Your task to perform on an android device: change text size in settings app Image 0: 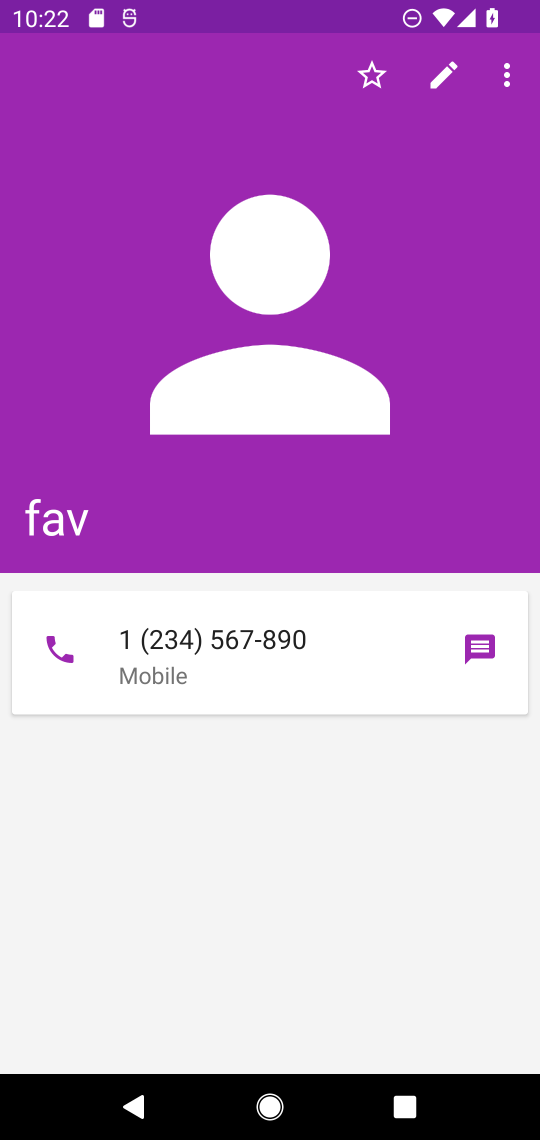
Step 0: press home button
Your task to perform on an android device: change text size in settings app Image 1: 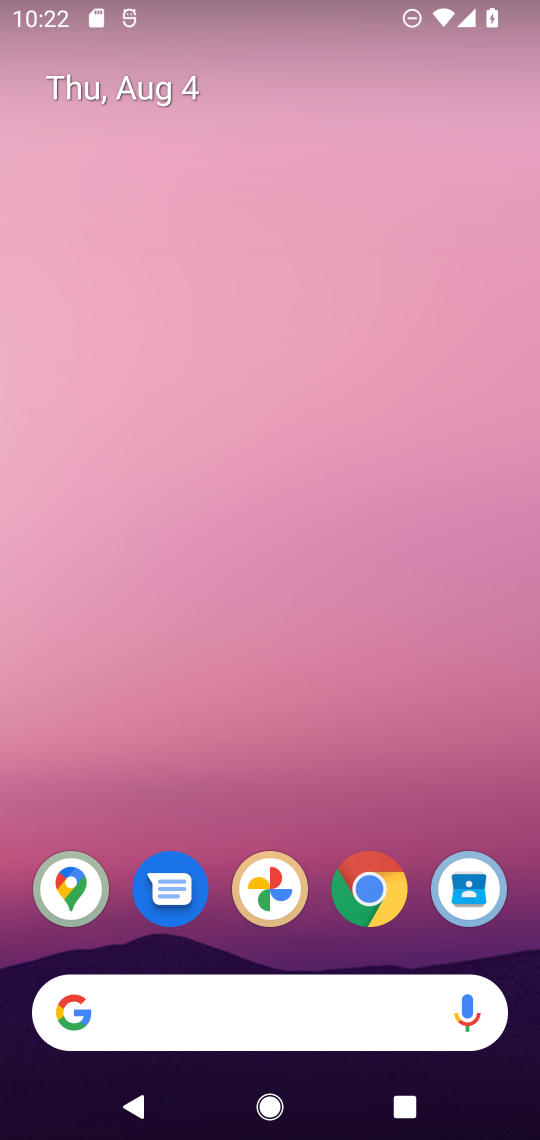
Step 1: drag from (407, 746) to (420, 232)
Your task to perform on an android device: change text size in settings app Image 2: 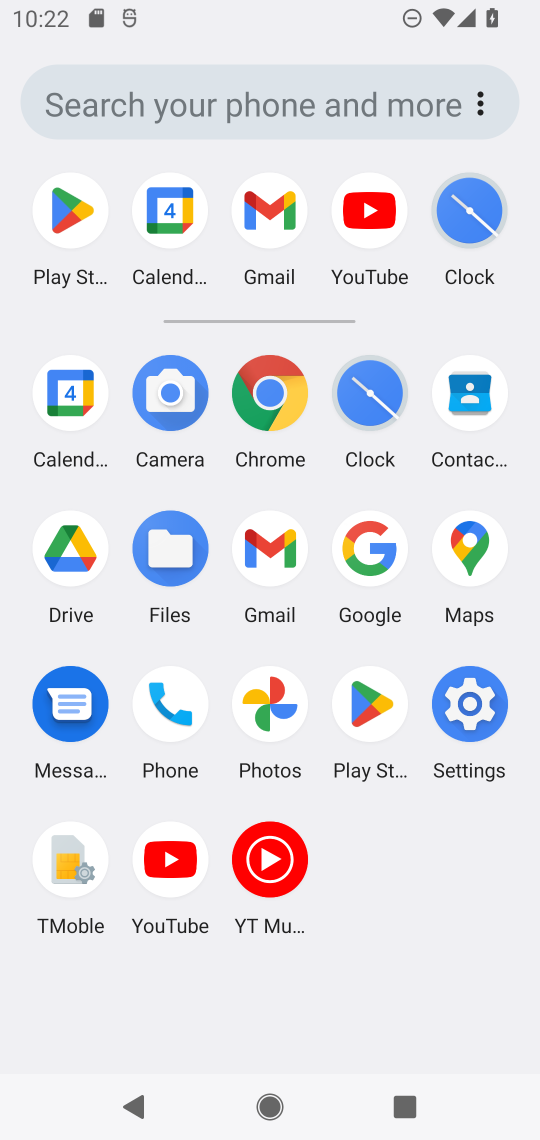
Step 2: click (478, 715)
Your task to perform on an android device: change text size in settings app Image 3: 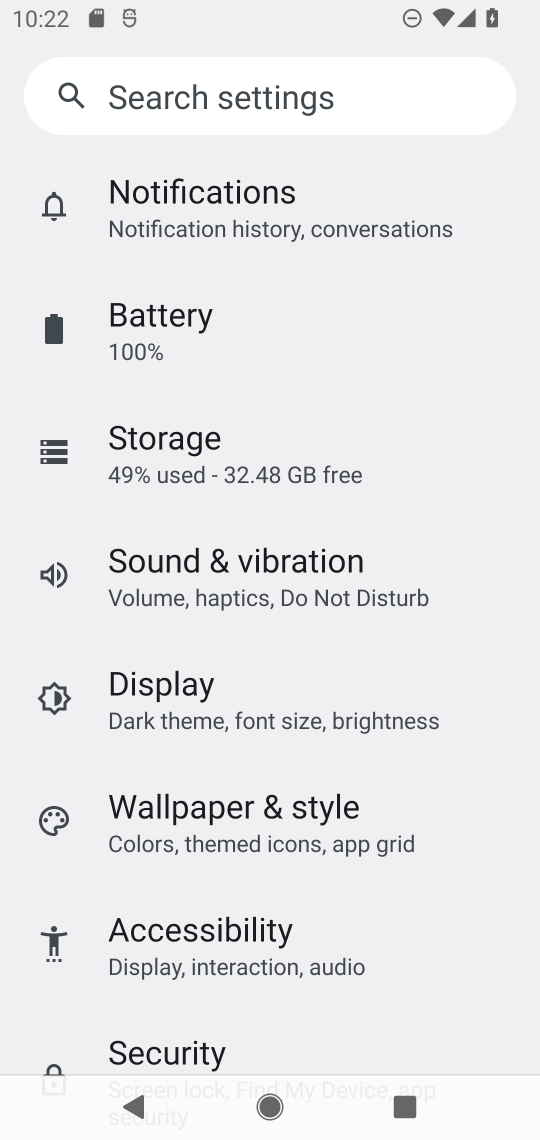
Step 3: drag from (456, 870) to (452, 693)
Your task to perform on an android device: change text size in settings app Image 4: 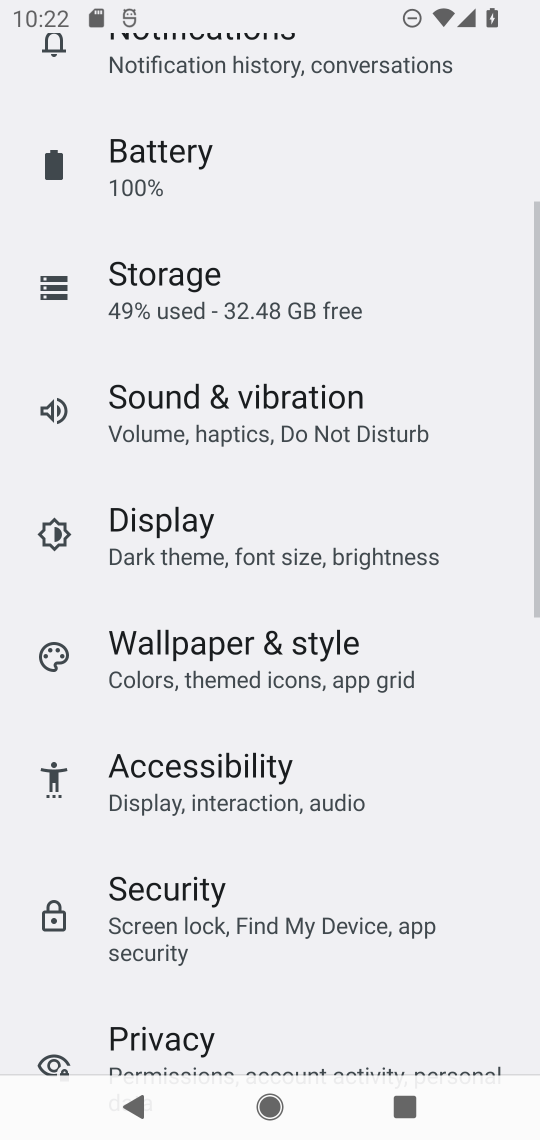
Step 4: drag from (442, 1005) to (475, 781)
Your task to perform on an android device: change text size in settings app Image 5: 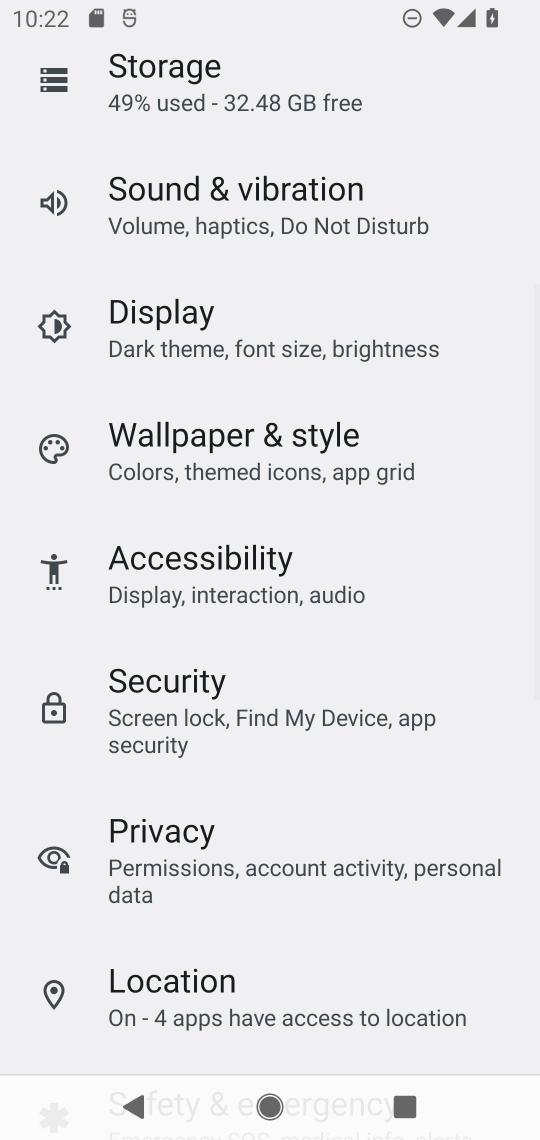
Step 5: drag from (479, 961) to (486, 732)
Your task to perform on an android device: change text size in settings app Image 6: 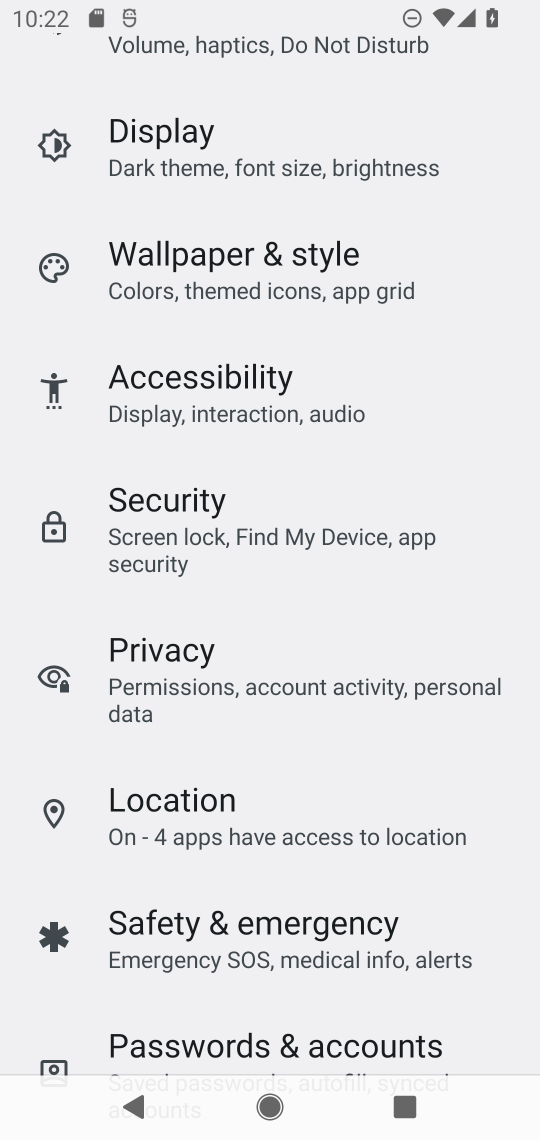
Step 6: drag from (461, 1018) to (490, 781)
Your task to perform on an android device: change text size in settings app Image 7: 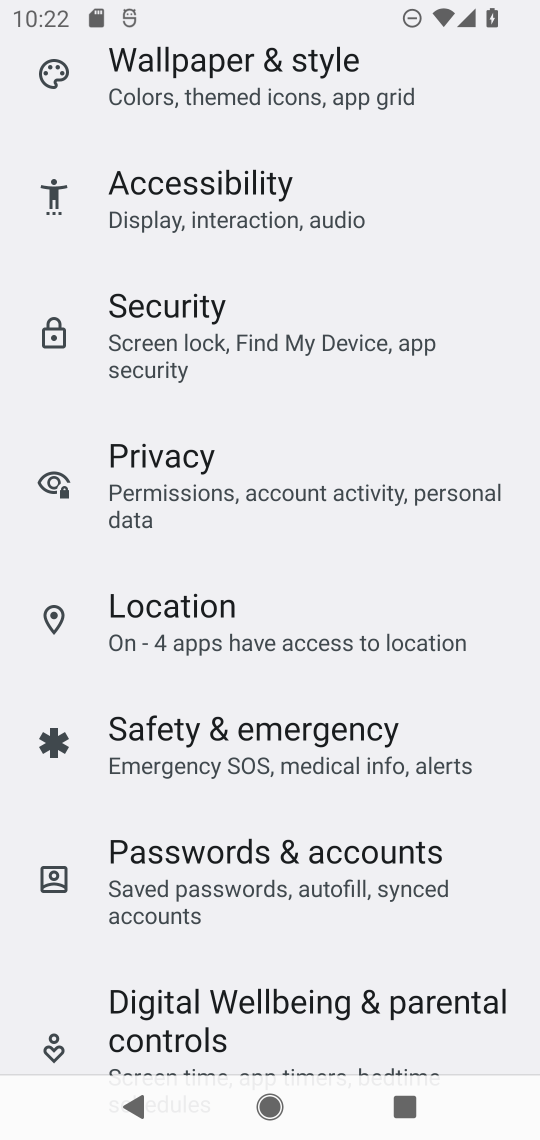
Step 7: drag from (479, 875) to (489, 612)
Your task to perform on an android device: change text size in settings app Image 8: 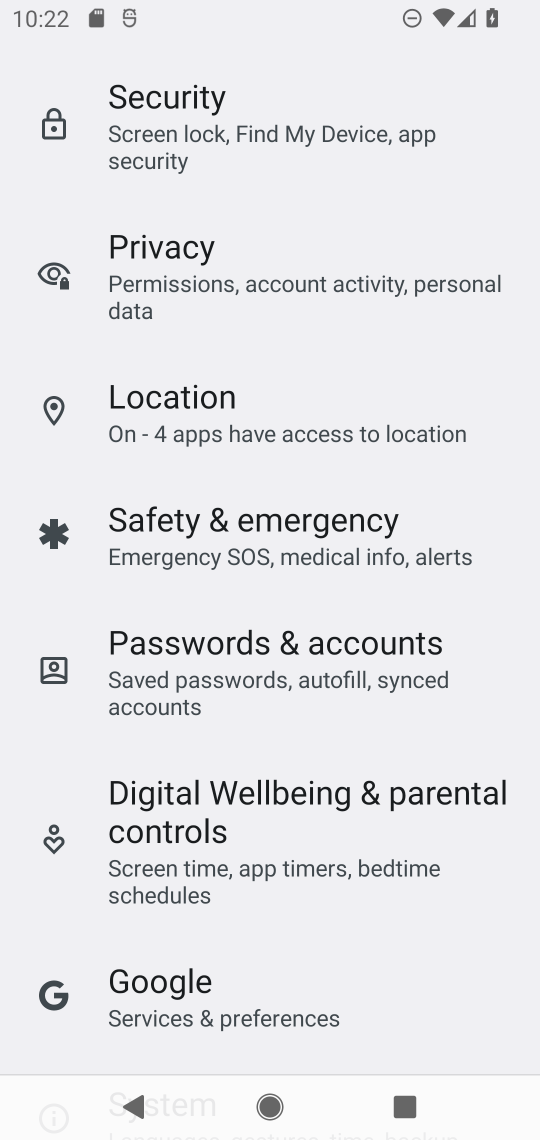
Step 8: drag from (458, 986) to (469, 720)
Your task to perform on an android device: change text size in settings app Image 9: 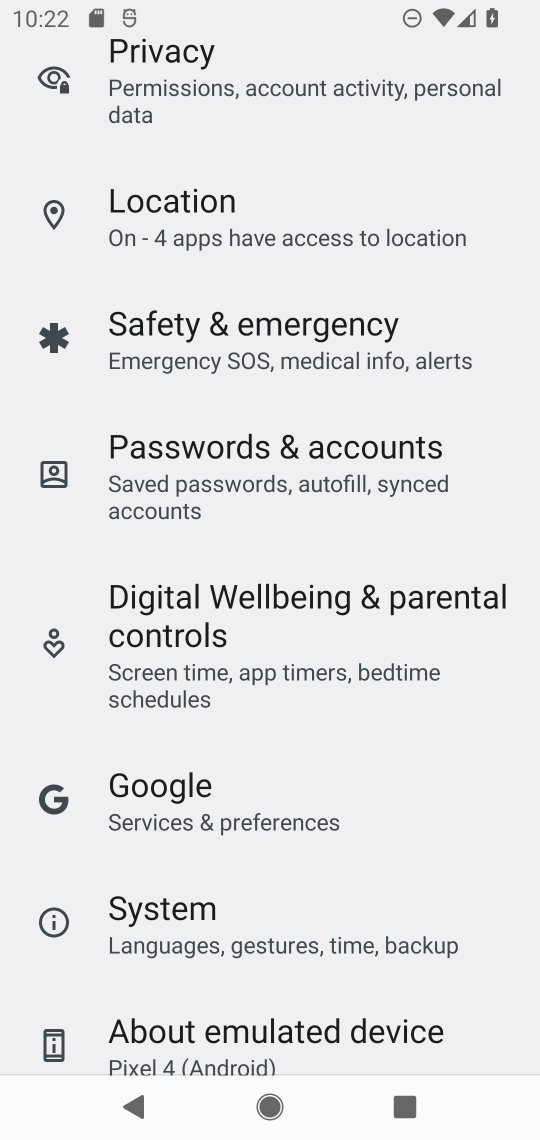
Step 9: drag from (450, 979) to (464, 747)
Your task to perform on an android device: change text size in settings app Image 10: 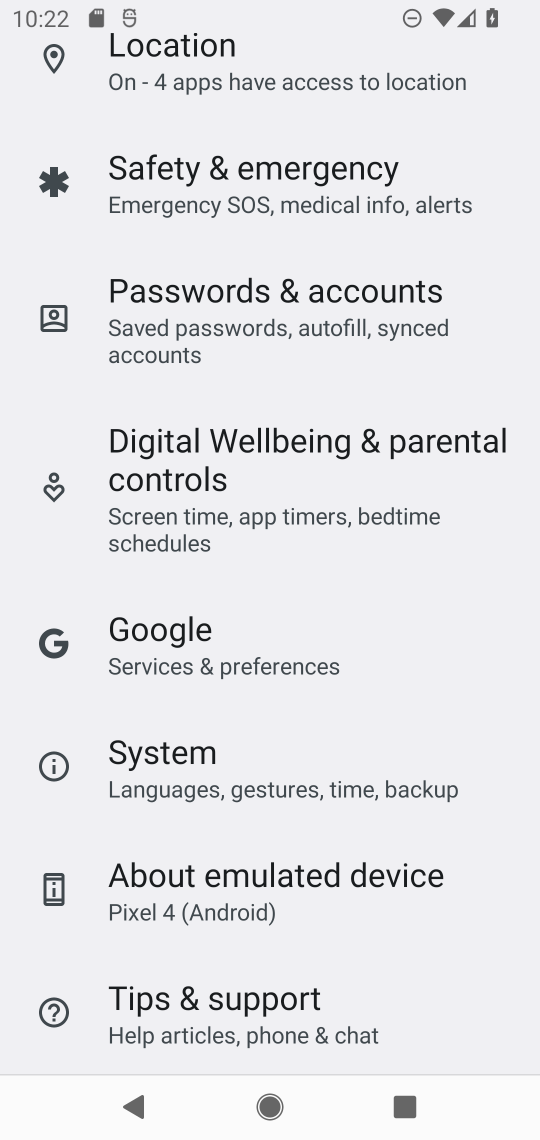
Step 10: drag from (466, 976) to (473, 722)
Your task to perform on an android device: change text size in settings app Image 11: 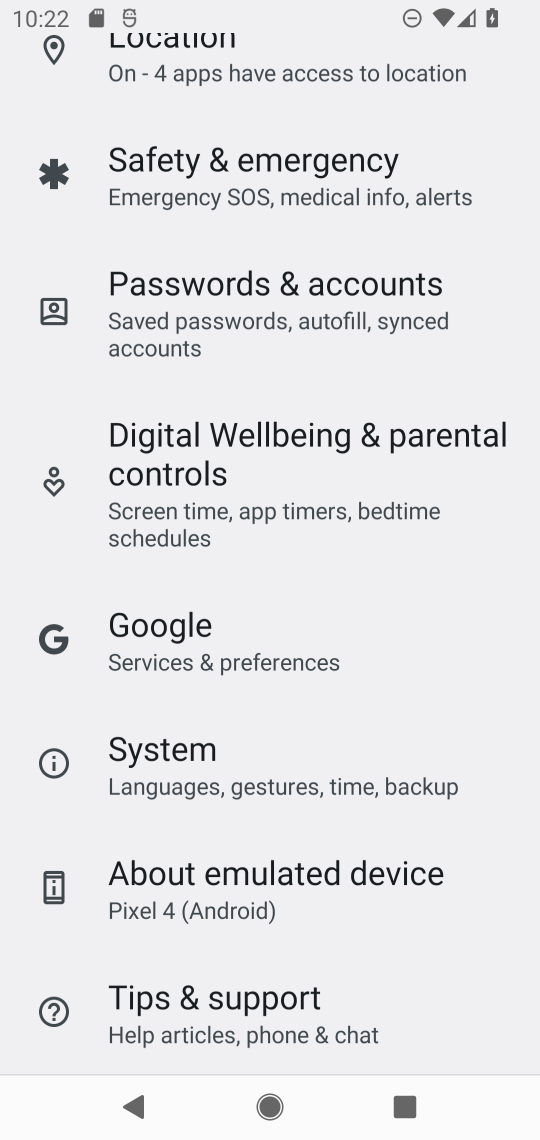
Step 11: drag from (484, 553) to (496, 841)
Your task to perform on an android device: change text size in settings app Image 12: 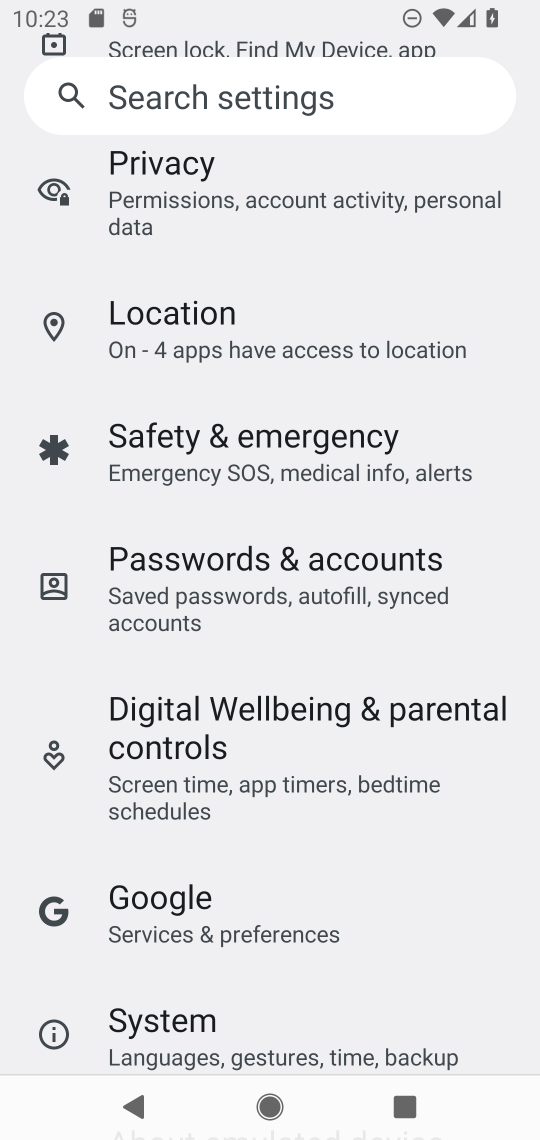
Step 12: drag from (496, 496) to (491, 763)
Your task to perform on an android device: change text size in settings app Image 13: 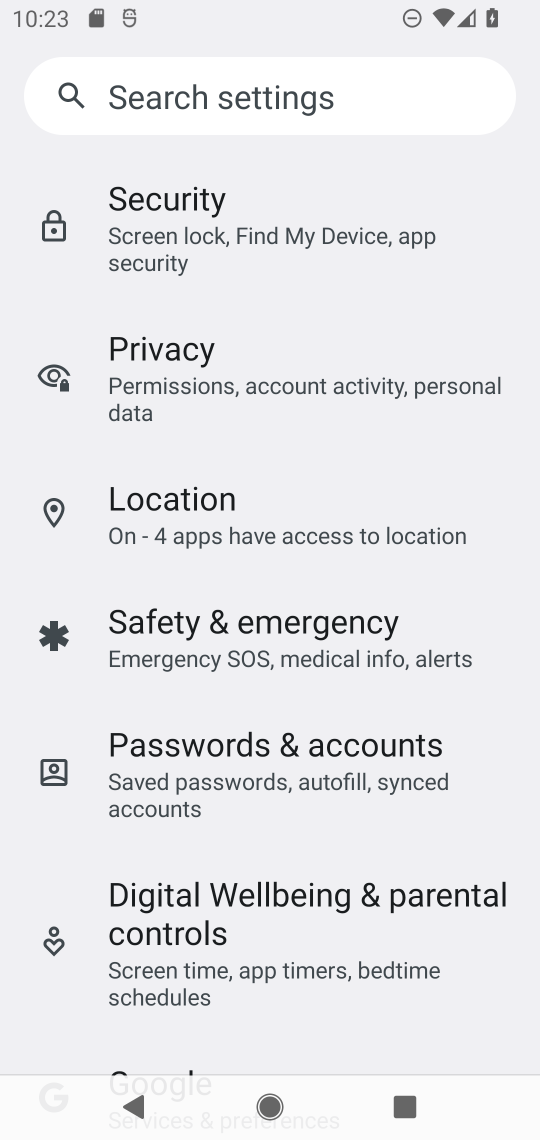
Step 13: drag from (505, 431) to (460, 684)
Your task to perform on an android device: change text size in settings app Image 14: 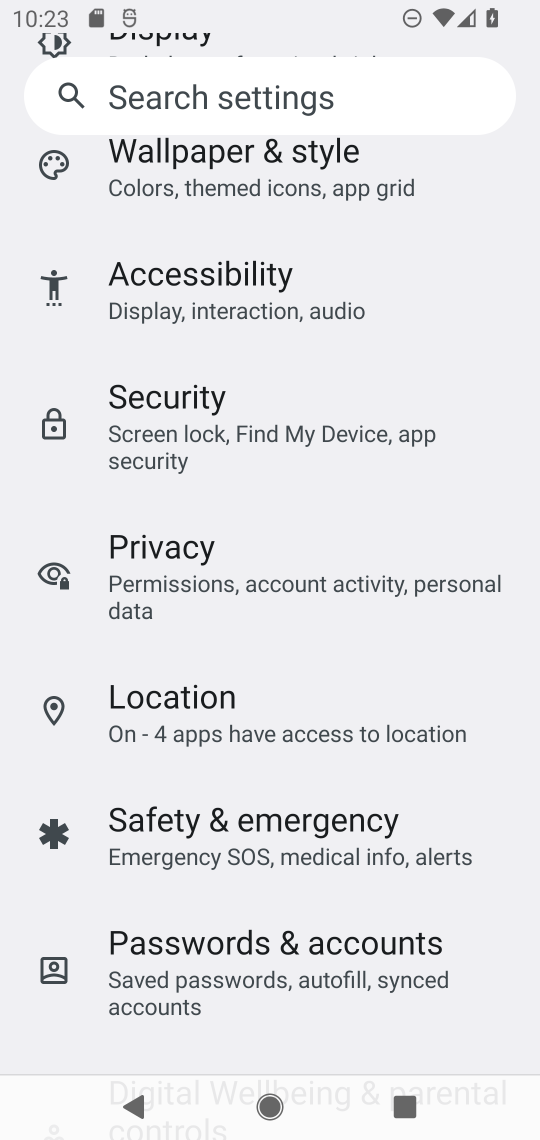
Step 14: drag from (472, 307) to (444, 622)
Your task to perform on an android device: change text size in settings app Image 15: 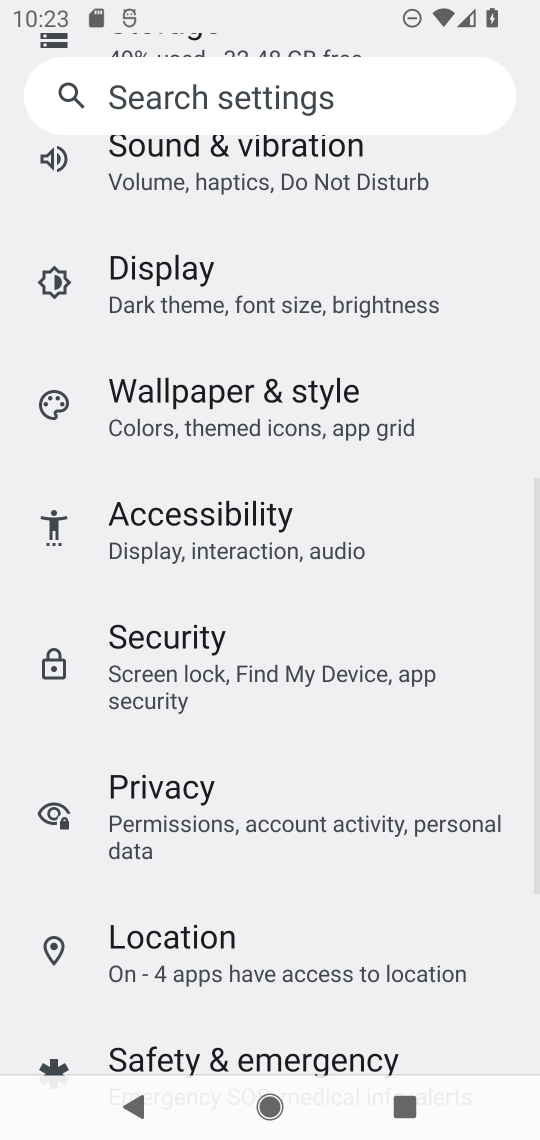
Step 15: drag from (454, 336) to (454, 605)
Your task to perform on an android device: change text size in settings app Image 16: 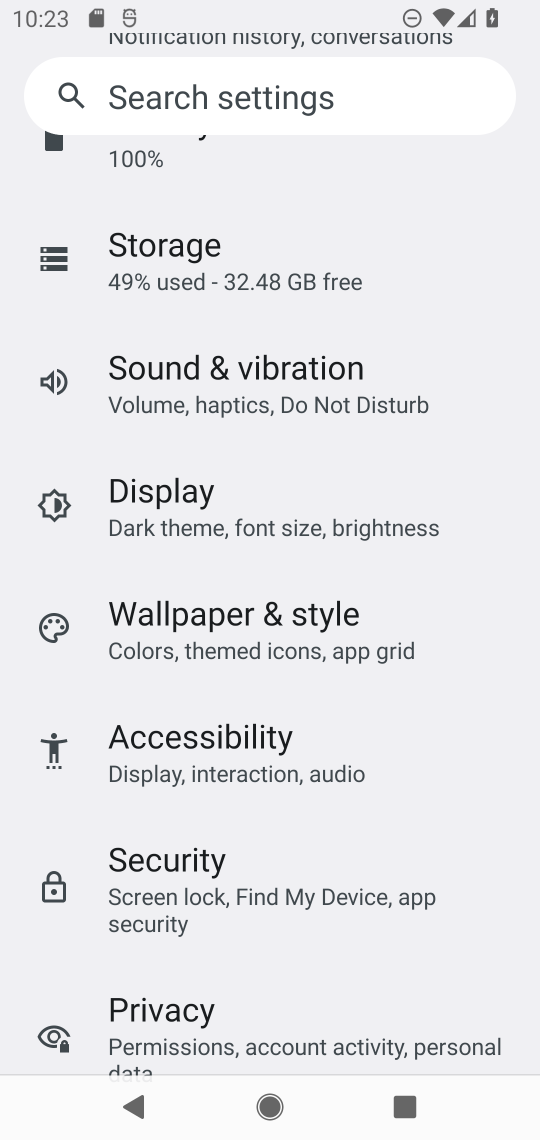
Step 16: click (457, 509)
Your task to perform on an android device: change text size in settings app Image 17: 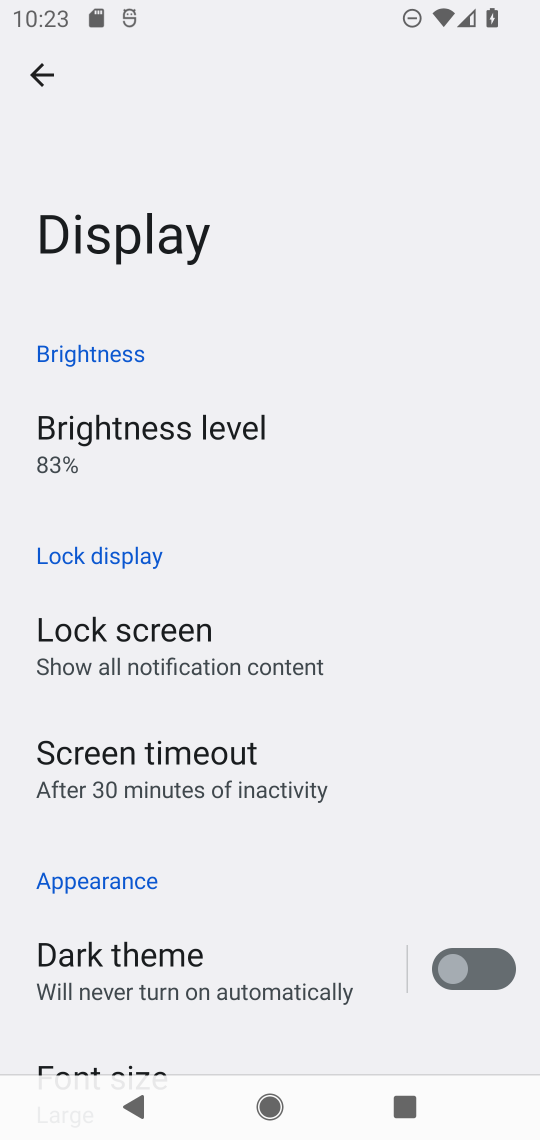
Step 17: drag from (397, 709) to (397, 495)
Your task to perform on an android device: change text size in settings app Image 18: 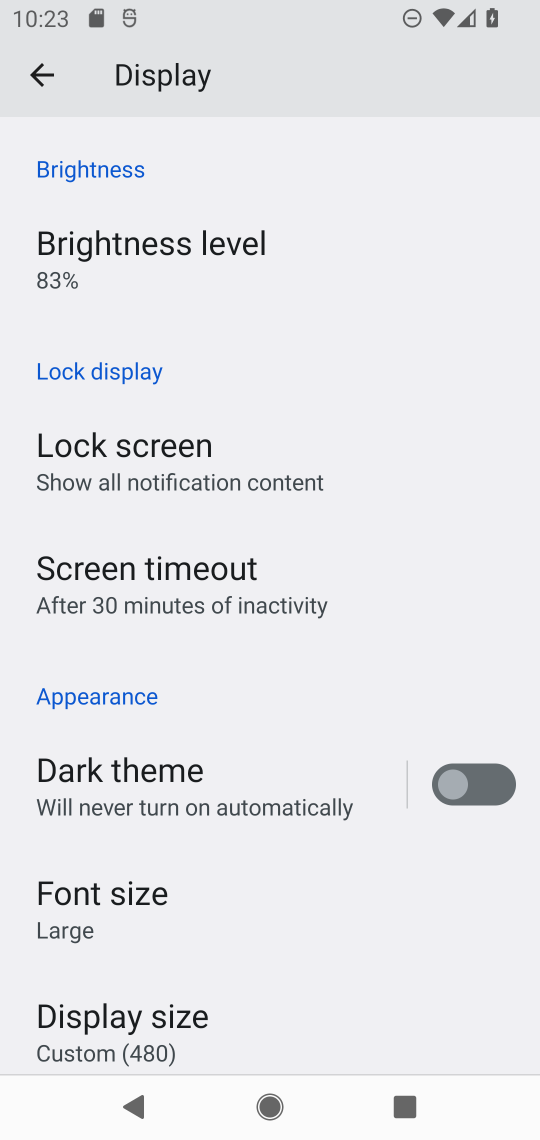
Step 18: drag from (333, 865) to (359, 626)
Your task to perform on an android device: change text size in settings app Image 19: 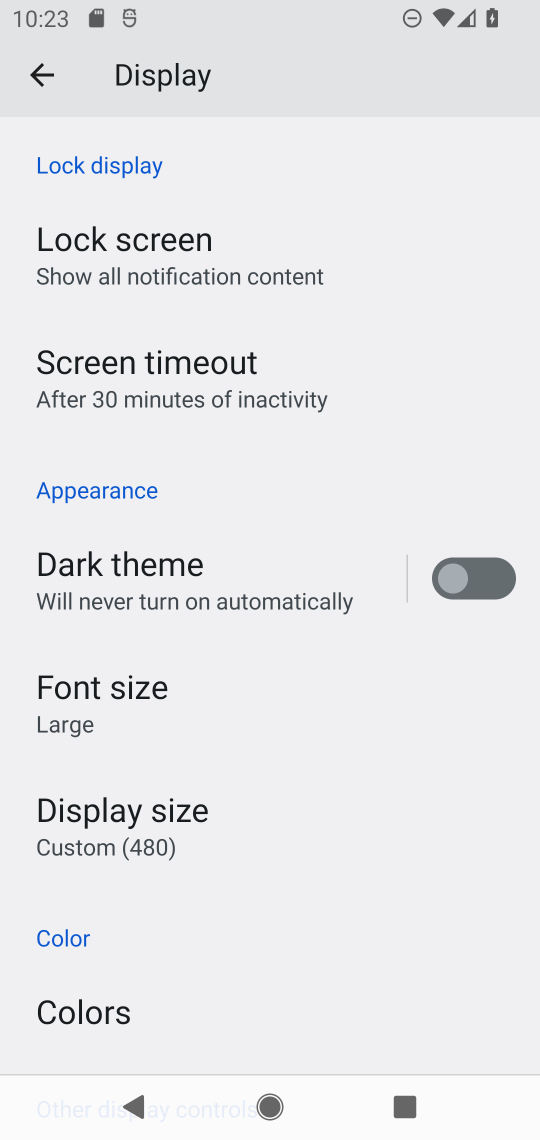
Step 19: click (347, 699)
Your task to perform on an android device: change text size in settings app Image 20: 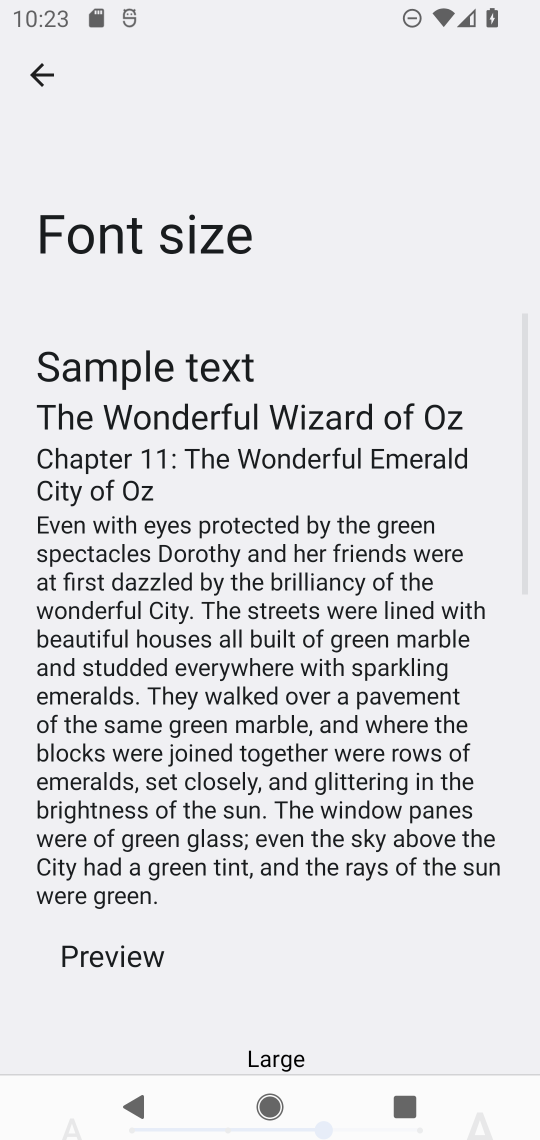
Step 20: drag from (341, 885) to (378, 648)
Your task to perform on an android device: change text size in settings app Image 21: 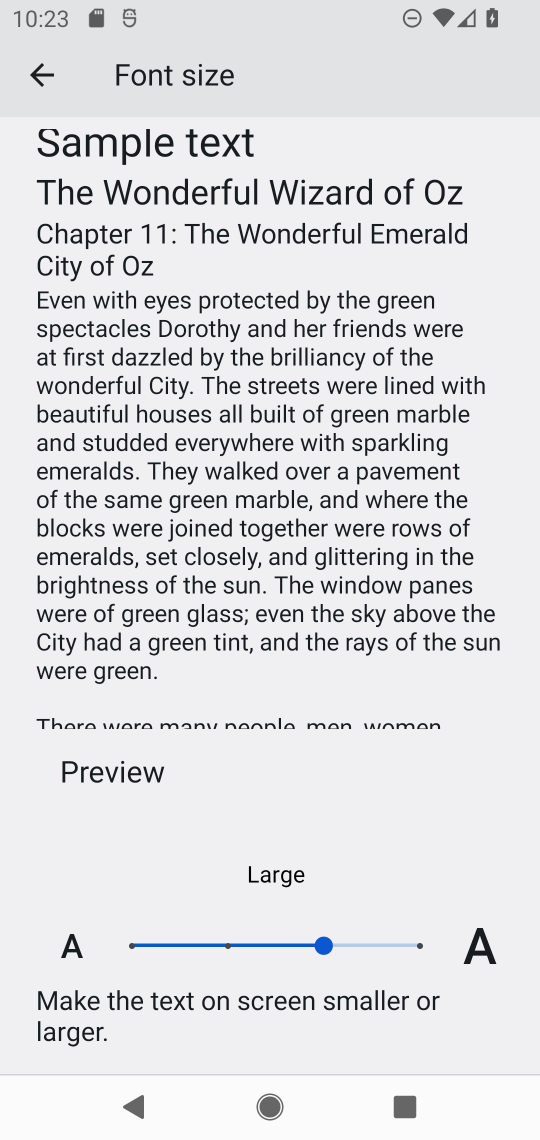
Step 21: click (405, 945)
Your task to perform on an android device: change text size in settings app Image 22: 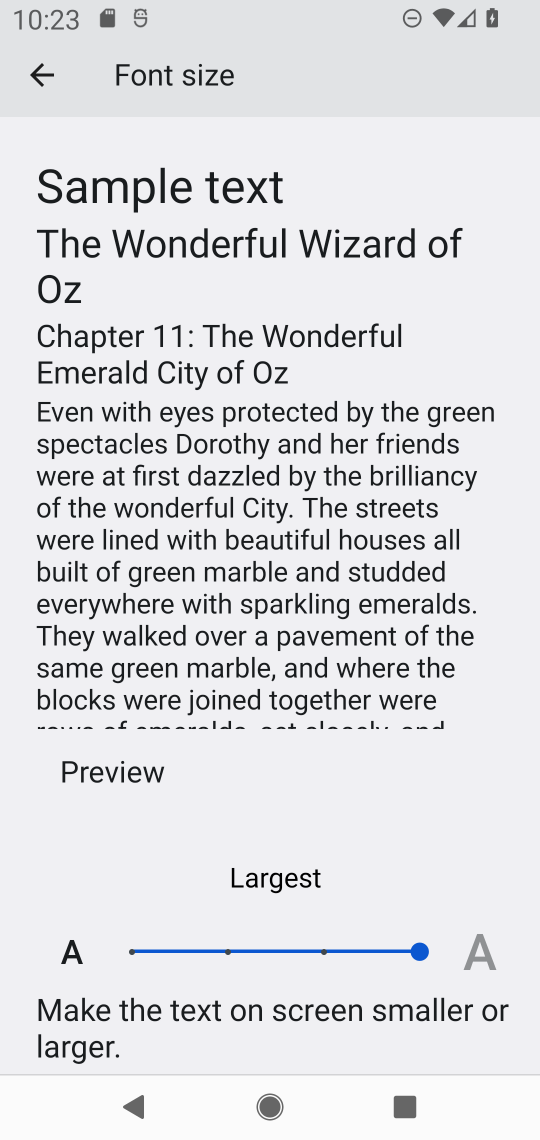
Step 22: task complete